Your task to perform on an android device: Go to display settings Image 0: 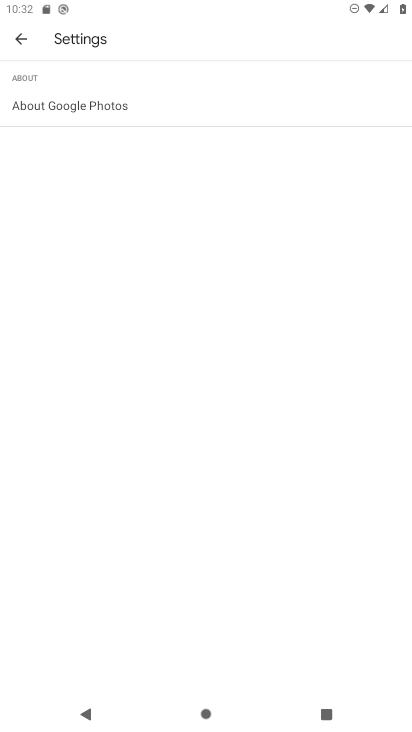
Step 0: press home button
Your task to perform on an android device: Go to display settings Image 1: 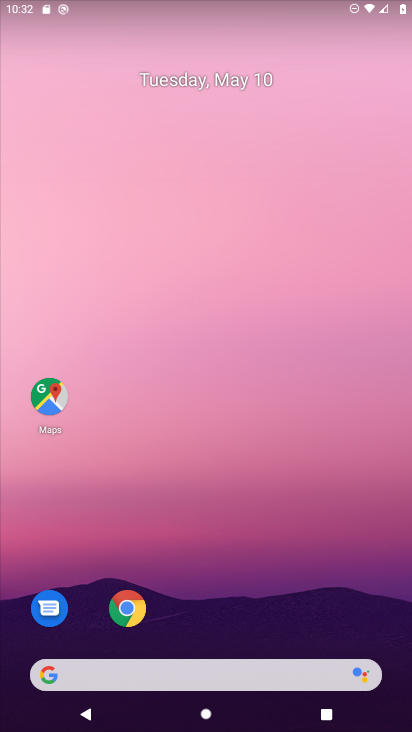
Step 1: drag from (227, 628) to (268, 318)
Your task to perform on an android device: Go to display settings Image 2: 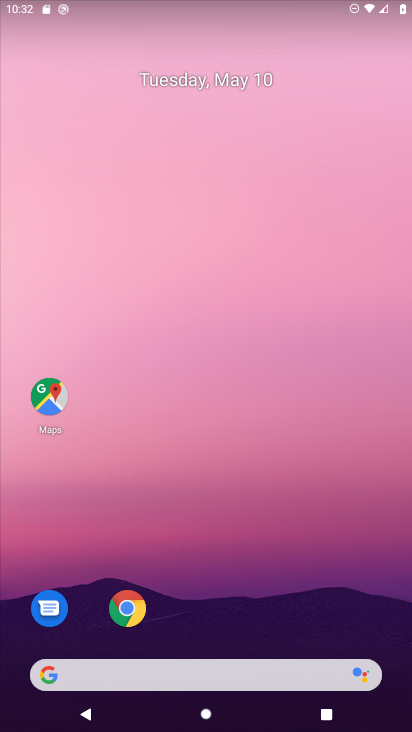
Step 2: drag from (232, 629) to (287, 193)
Your task to perform on an android device: Go to display settings Image 3: 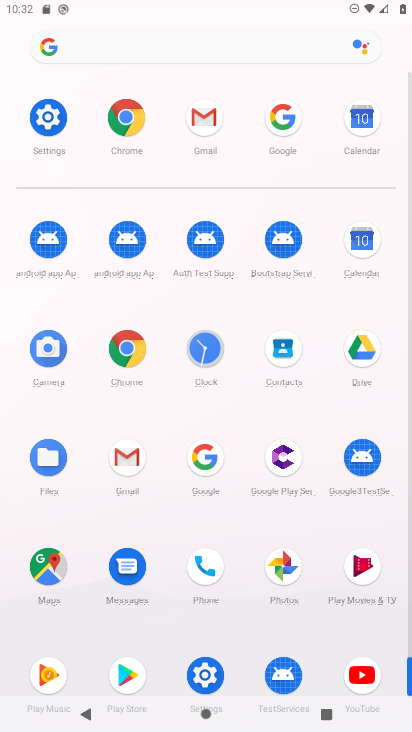
Step 3: click (48, 109)
Your task to perform on an android device: Go to display settings Image 4: 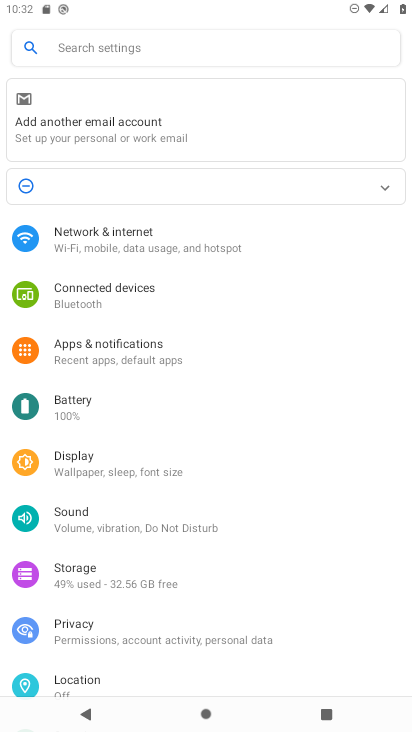
Step 4: click (102, 461)
Your task to perform on an android device: Go to display settings Image 5: 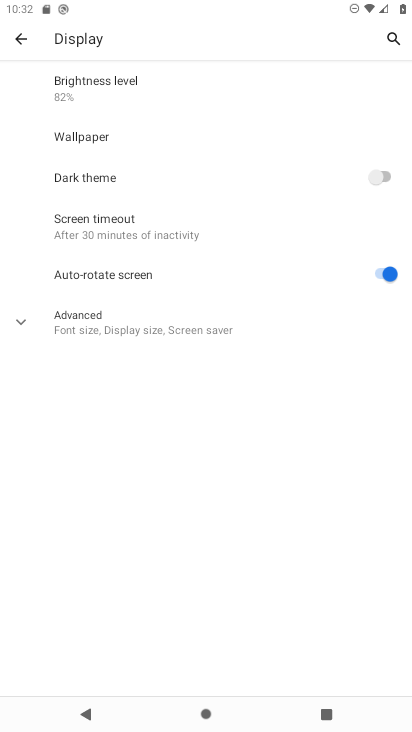
Step 5: task complete